Your task to perform on an android device: remove spam from my inbox in the gmail app Image 0: 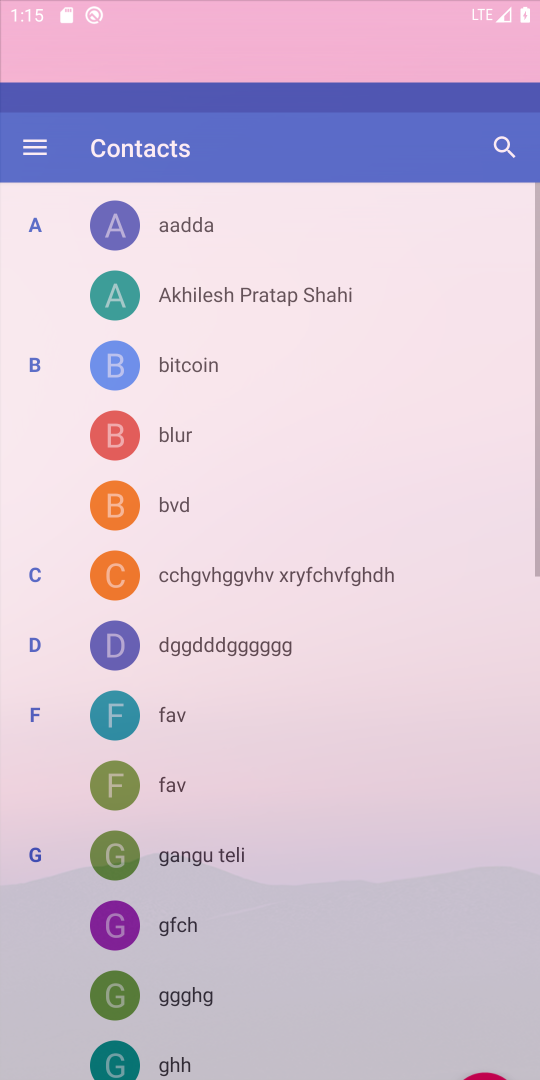
Step 0: press home button
Your task to perform on an android device: remove spam from my inbox in the gmail app Image 1: 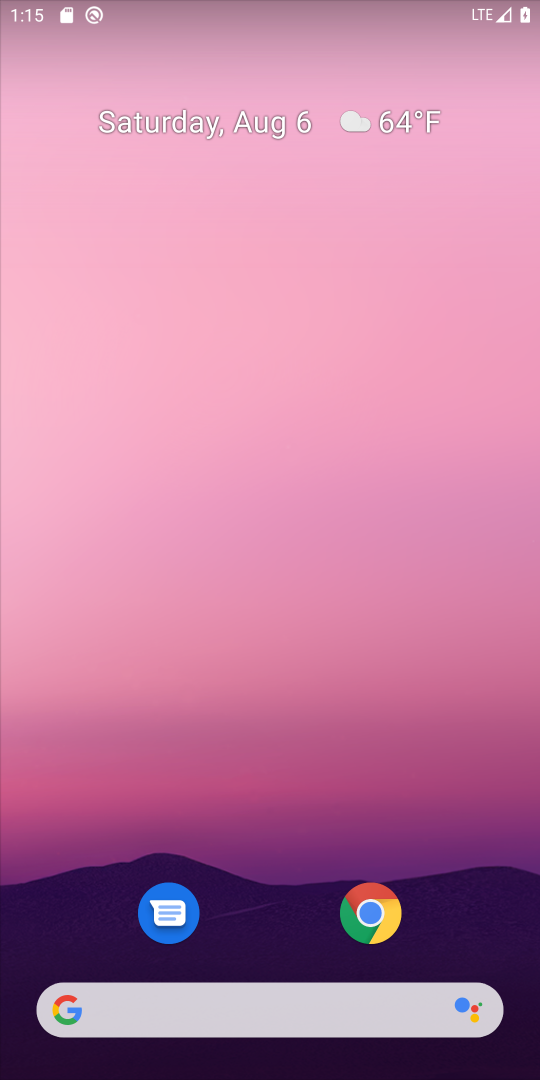
Step 1: drag from (273, 865) to (270, 259)
Your task to perform on an android device: remove spam from my inbox in the gmail app Image 2: 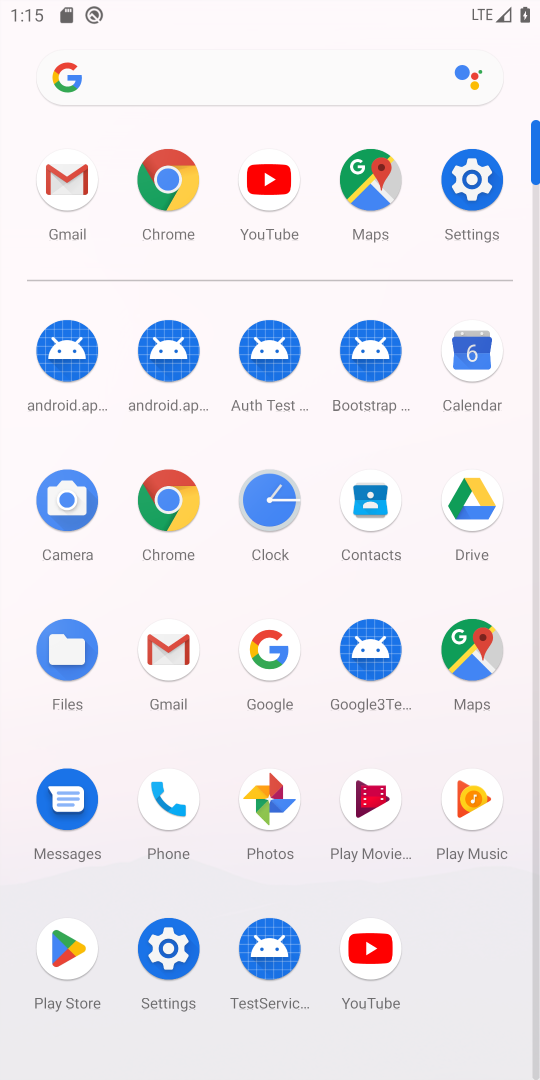
Step 2: click (165, 647)
Your task to perform on an android device: remove spam from my inbox in the gmail app Image 3: 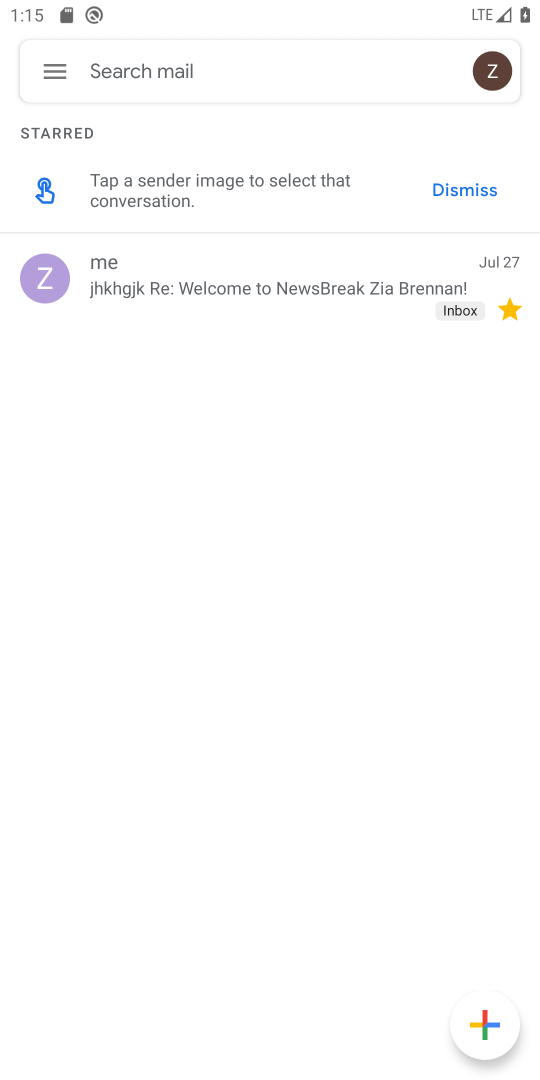
Step 3: click (52, 68)
Your task to perform on an android device: remove spam from my inbox in the gmail app Image 4: 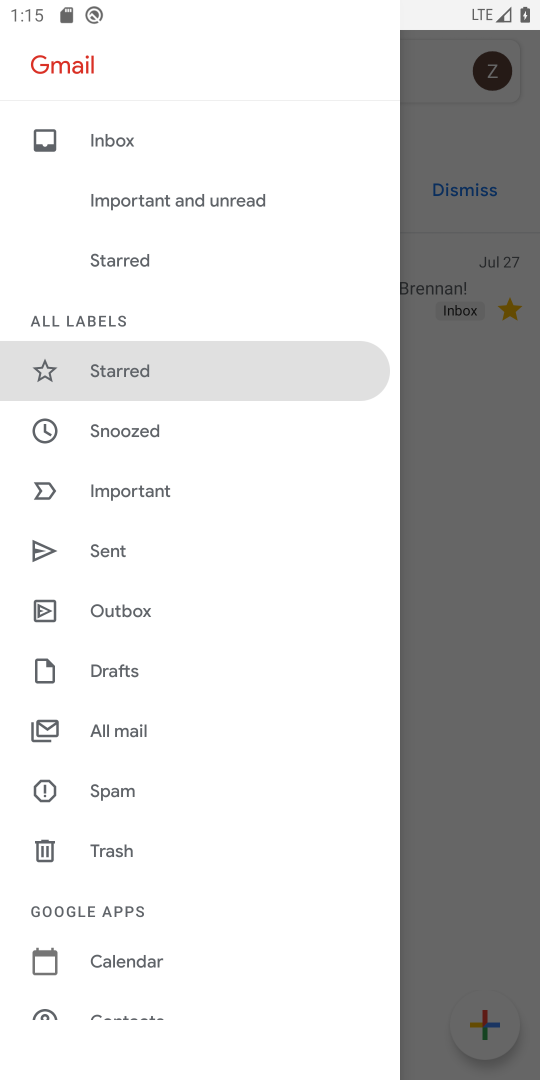
Step 4: drag from (261, 539) to (251, 436)
Your task to perform on an android device: remove spam from my inbox in the gmail app Image 5: 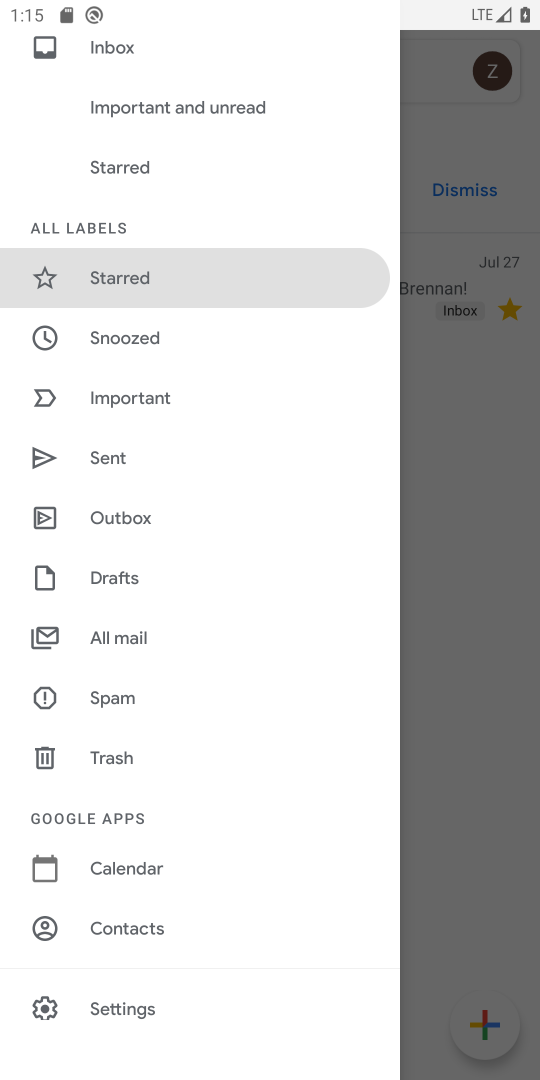
Step 5: drag from (266, 648) to (262, 422)
Your task to perform on an android device: remove spam from my inbox in the gmail app Image 6: 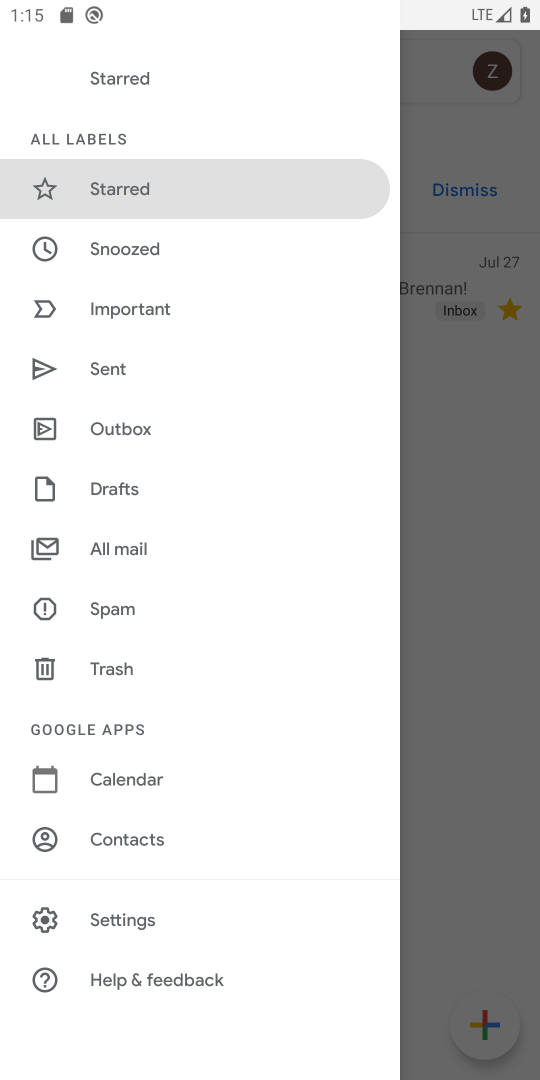
Step 6: drag from (258, 623) to (261, 468)
Your task to perform on an android device: remove spam from my inbox in the gmail app Image 7: 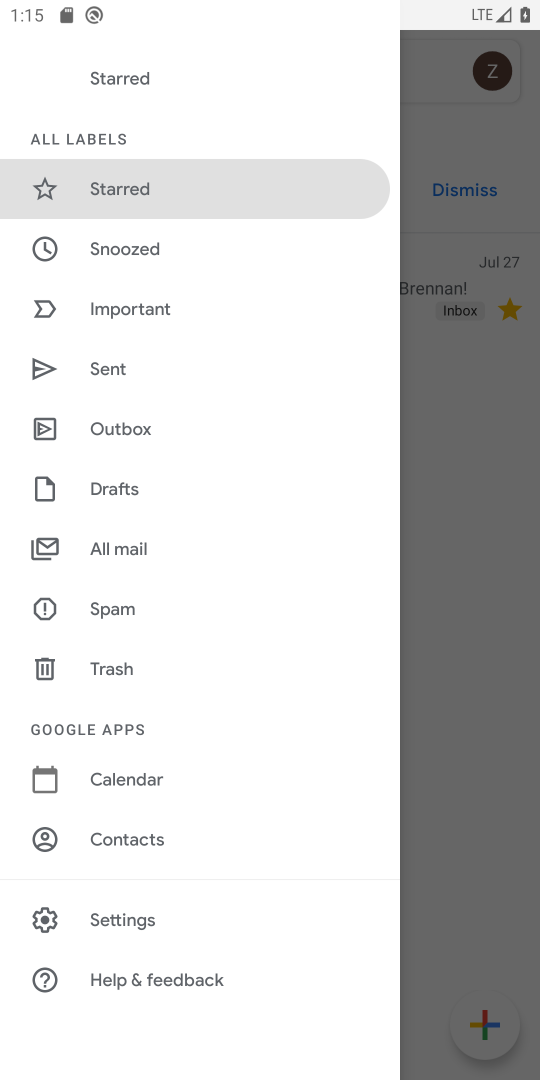
Step 7: click (177, 613)
Your task to perform on an android device: remove spam from my inbox in the gmail app Image 8: 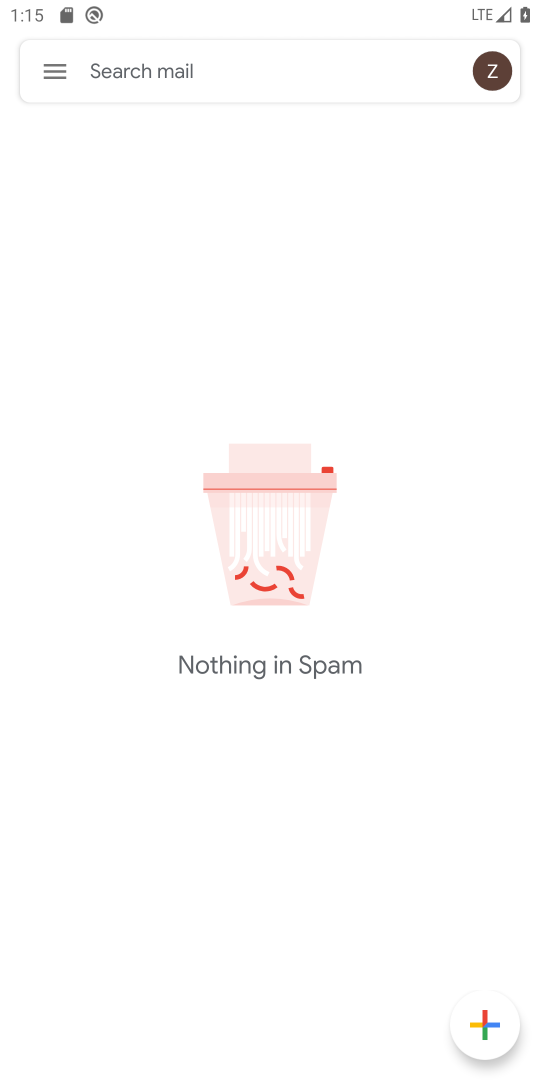
Step 8: task complete